Your task to perform on an android device: Open wifi settings Image 0: 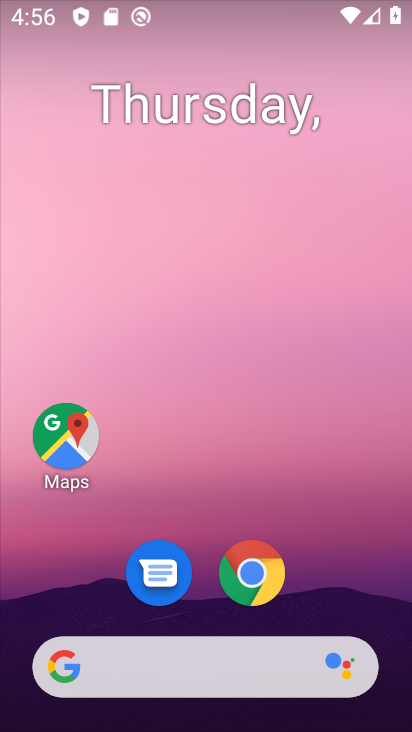
Step 0: drag from (301, 546) to (219, 28)
Your task to perform on an android device: Open wifi settings Image 1: 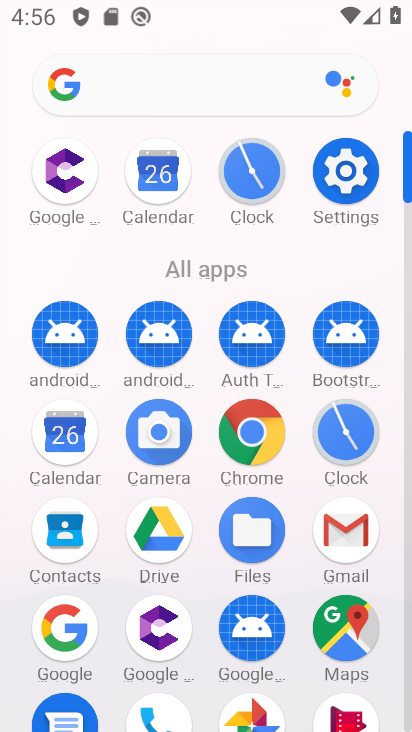
Step 1: drag from (13, 569) to (15, 259)
Your task to perform on an android device: Open wifi settings Image 2: 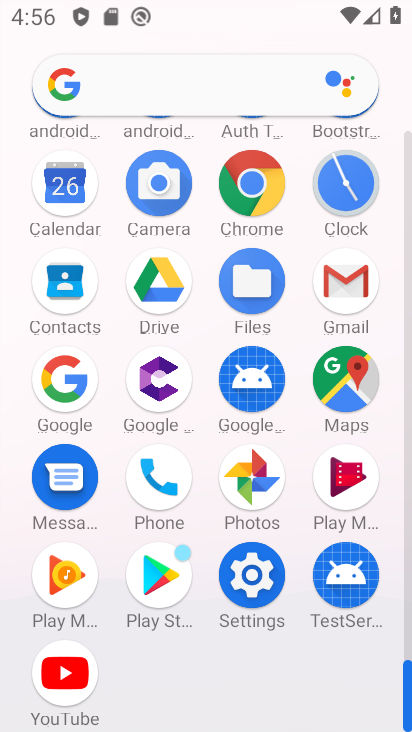
Step 2: click (247, 575)
Your task to perform on an android device: Open wifi settings Image 3: 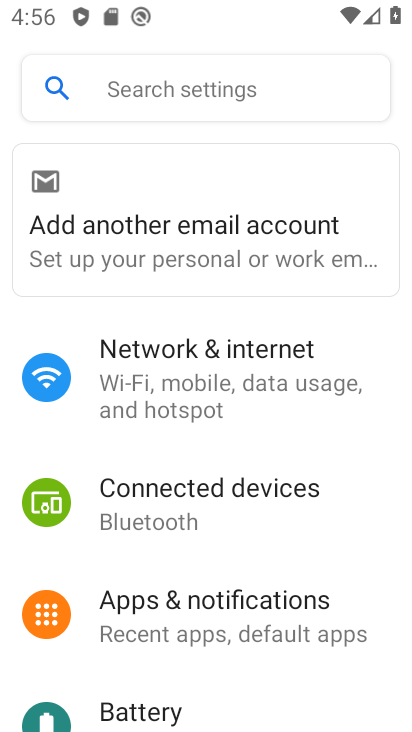
Step 3: click (249, 396)
Your task to perform on an android device: Open wifi settings Image 4: 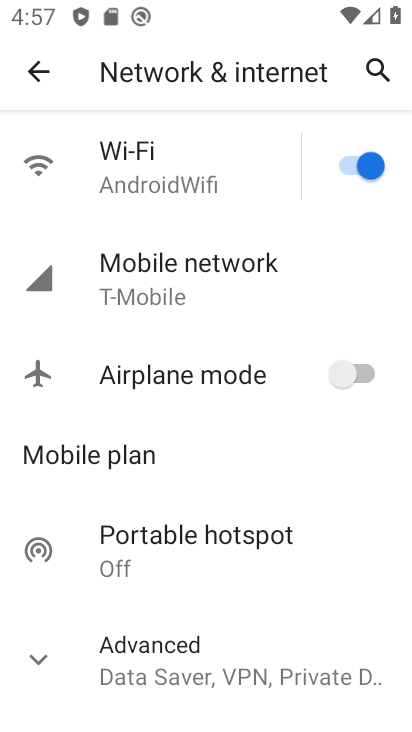
Step 4: click (151, 160)
Your task to perform on an android device: Open wifi settings Image 5: 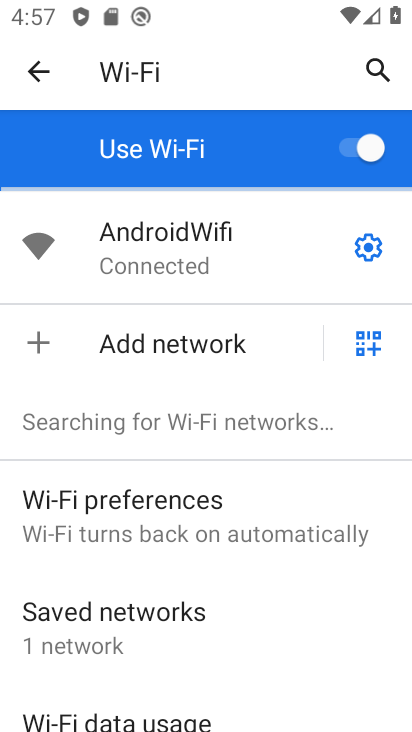
Step 5: task complete